Your task to perform on an android device: turn off picture-in-picture Image 0: 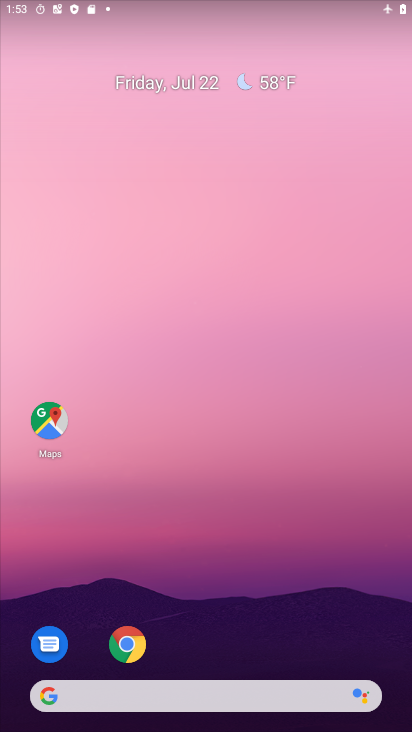
Step 0: drag from (188, 639) to (120, 12)
Your task to perform on an android device: turn off picture-in-picture Image 1: 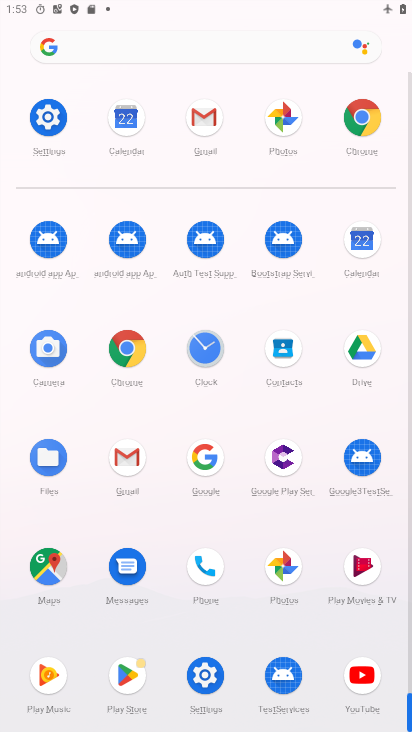
Step 1: click (36, 125)
Your task to perform on an android device: turn off picture-in-picture Image 2: 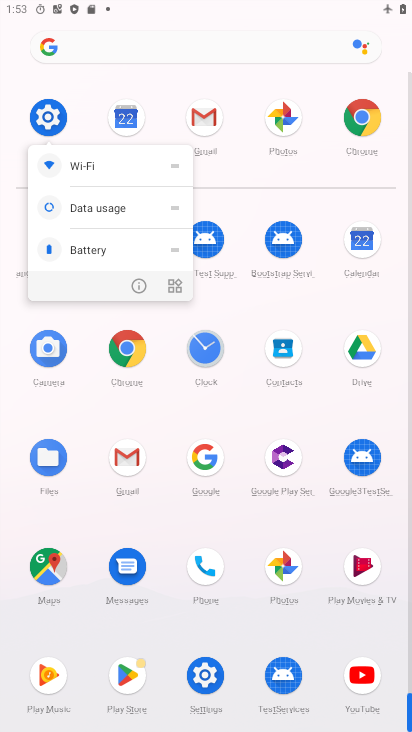
Step 2: click (123, 282)
Your task to perform on an android device: turn off picture-in-picture Image 3: 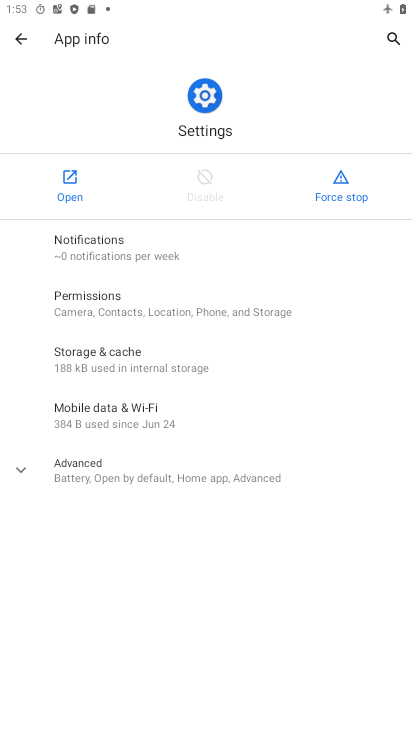
Step 3: click (59, 186)
Your task to perform on an android device: turn off picture-in-picture Image 4: 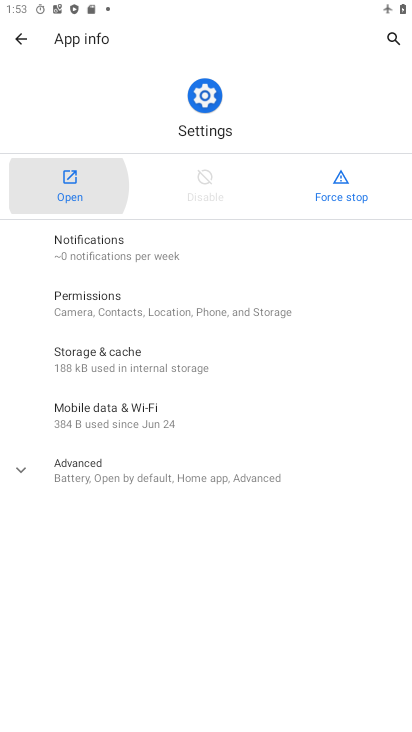
Step 4: click (59, 186)
Your task to perform on an android device: turn off picture-in-picture Image 5: 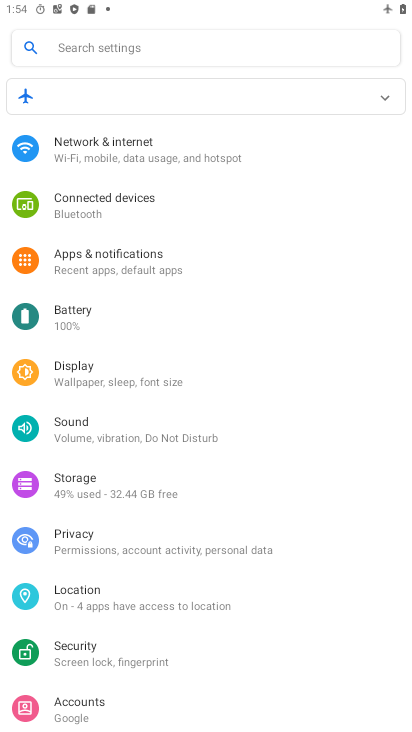
Step 5: click (145, 266)
Your task to perform on an android device: turn off picture-in-picture Image 6: 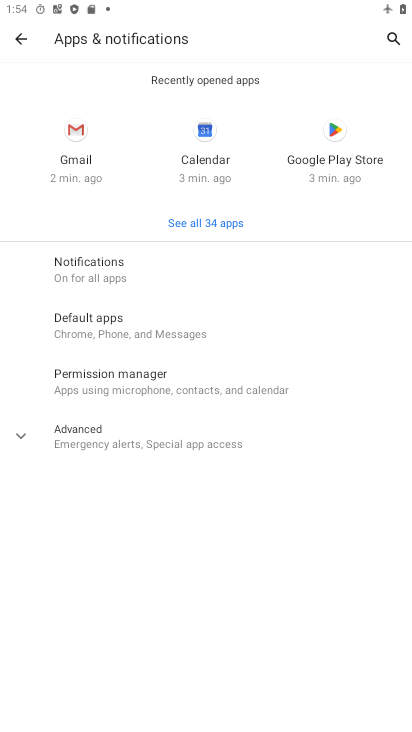
Step 6: drag from (131, 539) to (206, 194)
Your task to perform on an android device: turn off picture-in-picture Image 7: 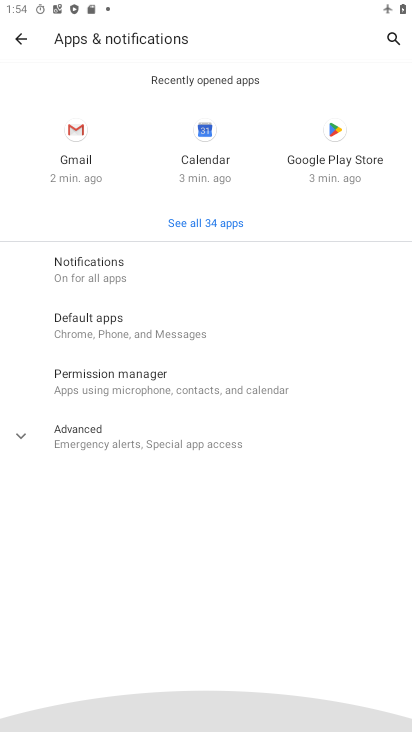
Step 7: drag from (200, 261) to (245, 612)
Your task to perform on an android device: turn off picture-in-picture Image 8: 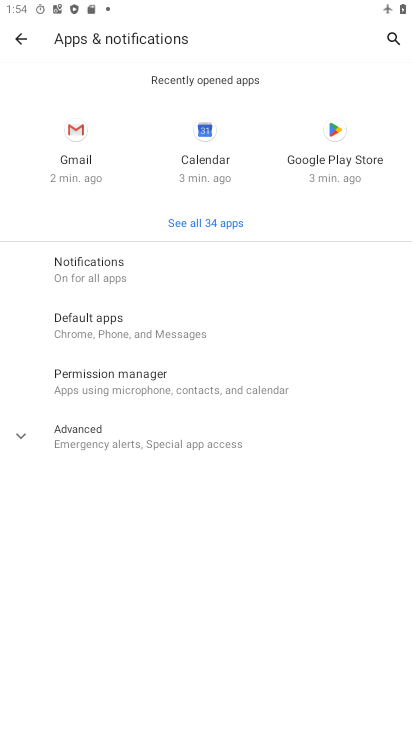
Step 8: drag from (139, 274) to (253, 717)
Your task to perform on an android device: turn off picture-in-picture Image 9: 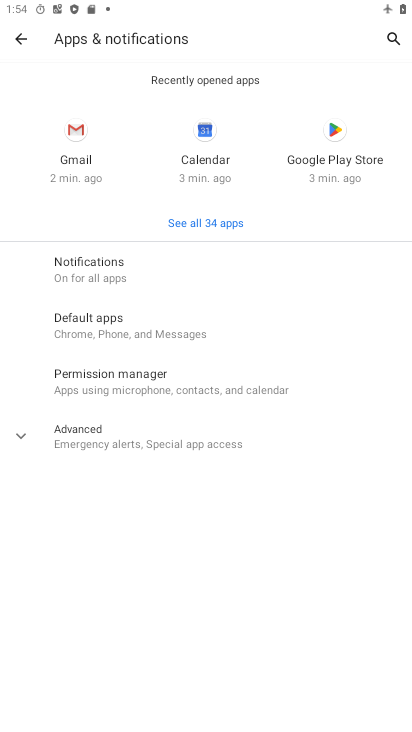
Step 9: drag from (170, 530) to (171, 135)
Your task to perform on an android device: turn off picture-in-picture Image 10: 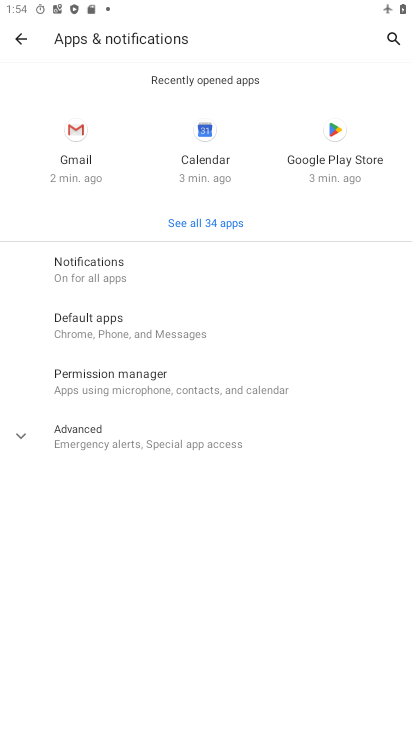
Step 10: drag from (159, 604) to (195, 402)
Your task to perform on an android device: turn off picture-in-picture Image 11: 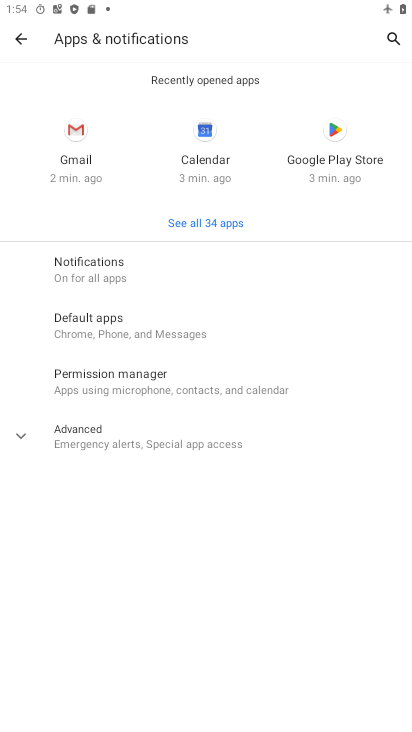
Step 11: click (81, 422)
Your task to perform on an android device: turn off picture-in-picture Image 12: 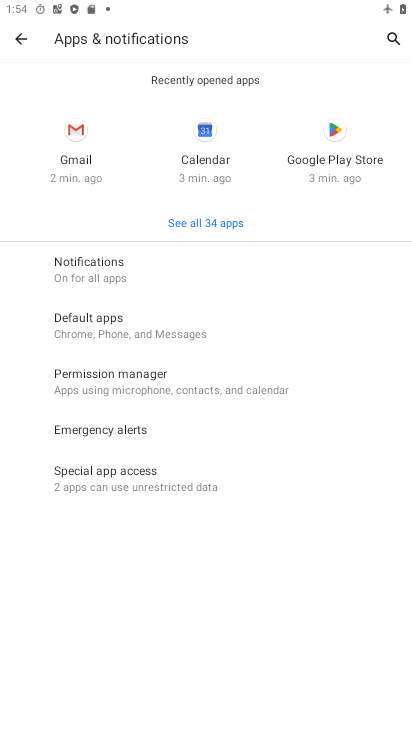
Step 12: drag from (140, 456) to (226, 170)
Your task to perform on an android device: turn off picture-in-picture Image 13: 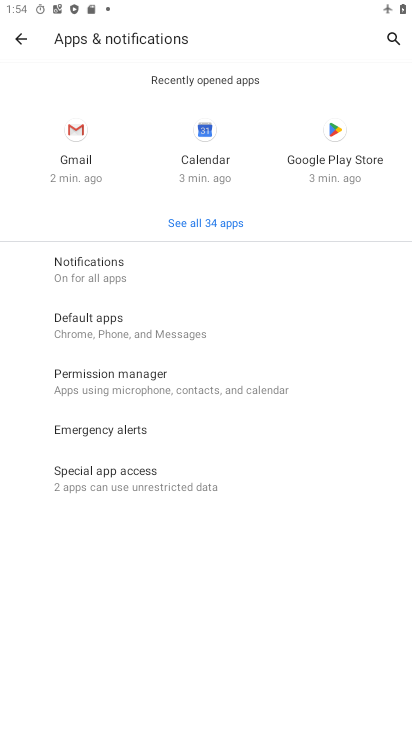
Step 13: click (152, 477)
Your task to perform on an android device: turn off picture-in-picture Image 14: 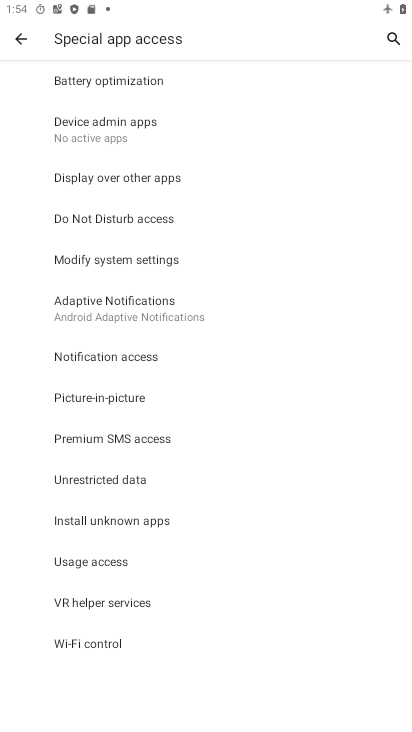
Step 14: drag from (217, 488) to (268, 191)
Your task to perform on an android device: turn off picture-in-picture Image 15: 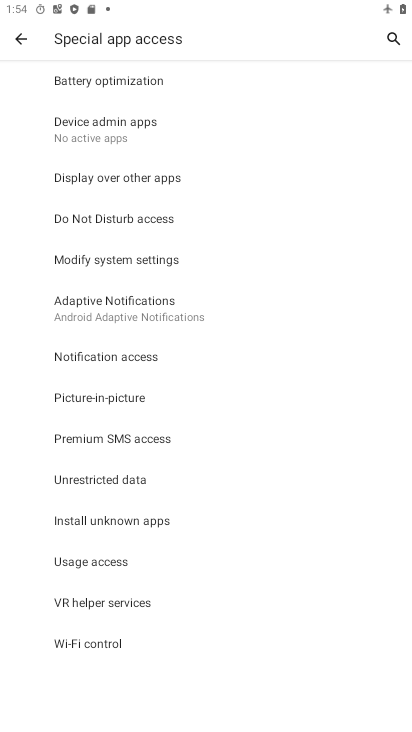
Step 15: click (129, 403)
Your task to perform on an android device: turn off picture-in-picture Image 16: 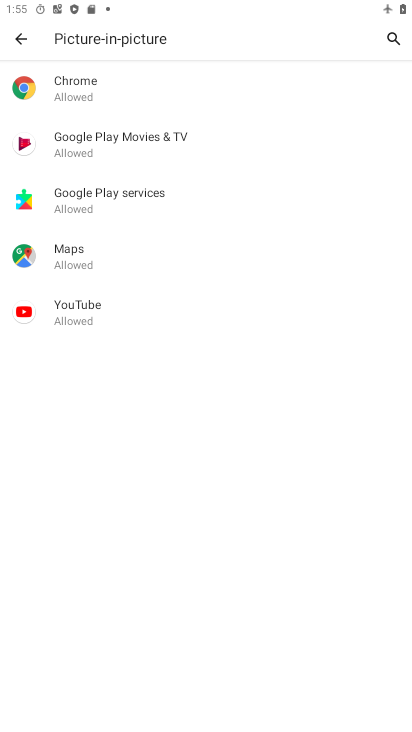
Step 16: drag from (245, 428) to (293, 158)
Your task to perform on an android device: turn off picture-in-picture Image 17: 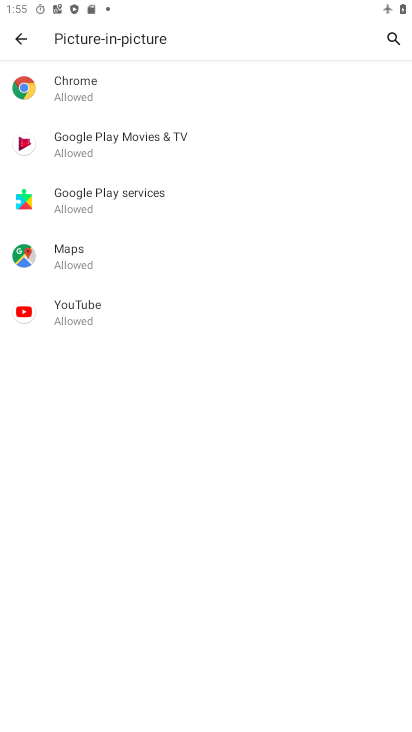
Step 17: click (180, 94)
Your task to perform on an android device: turn off picture-in-picture Image 18: 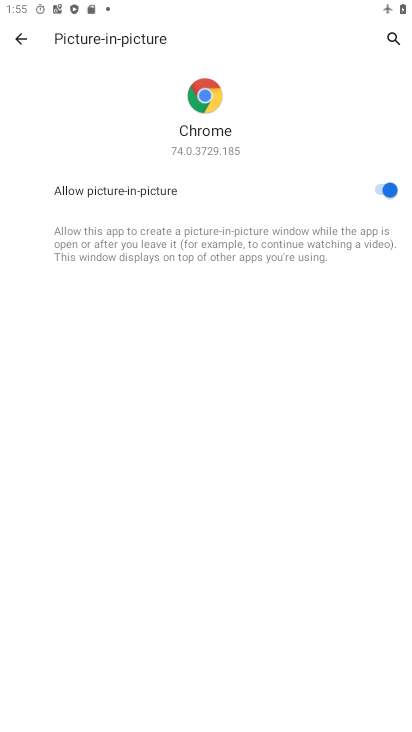
Step 18: click (391, 185)
Your task to perform on an android device: turn off picture-in-picture Image 19: 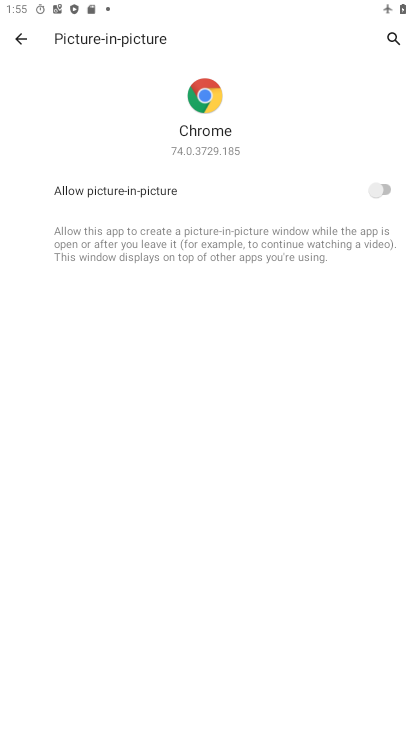
Step 19: task complete